Your task to perform on an android device: allow notifications from all sites in the chrome app Image 0: 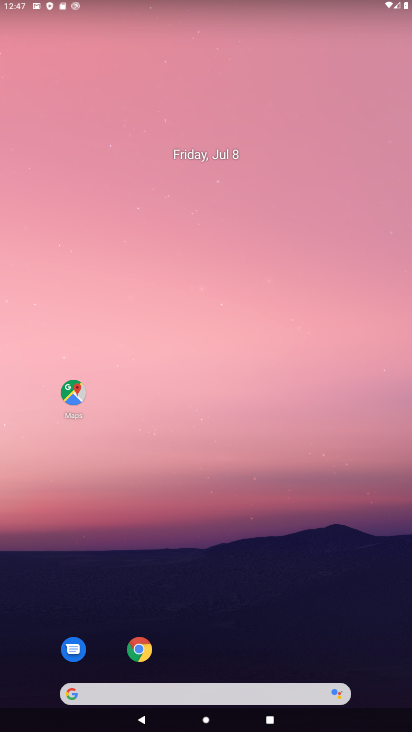
Step 0: drag from (276, 618) to (269, 119)
Your task to perform on an android device: allow notifications from all sites in the chrome app Image 1: 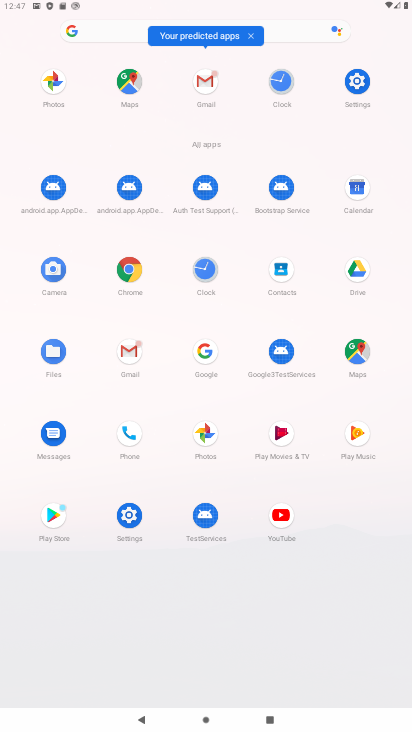
Step 1: click (130, 271)
Your task to perform on an android device: allow notifications from all sites in the chrome app Image 2: 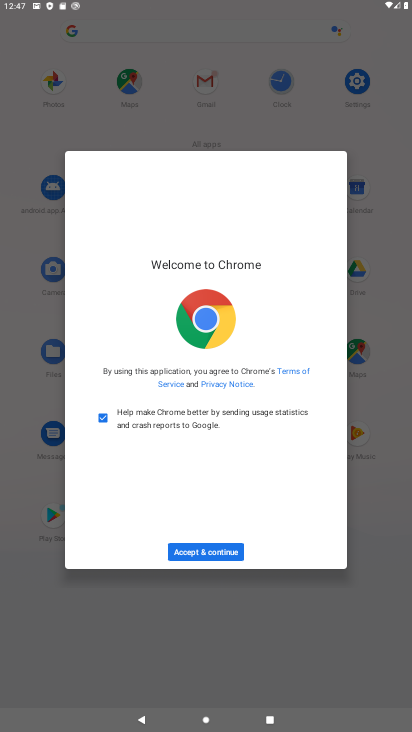
Step 2: click (223, 554)
Your task to perform on an android device: allow notifications from all sites in the chrome app Image 3: 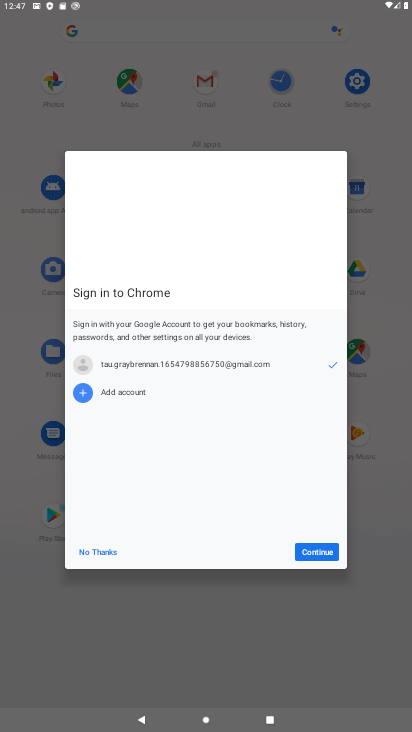
Step 3: click (323, 549)
Your task to perform on an android device: allow notifications from all sites in the chrome app Image 4: 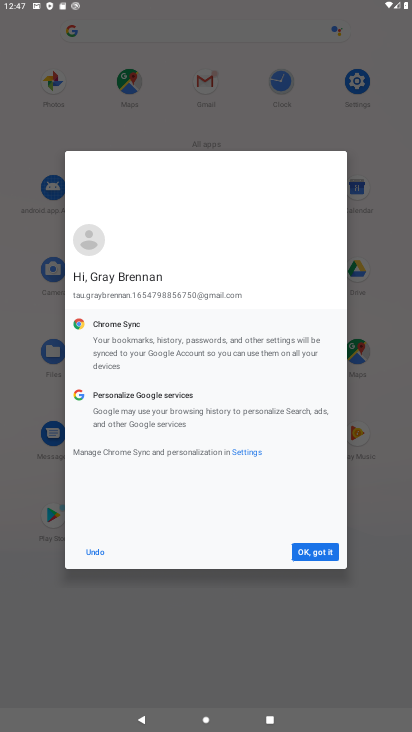
Step 4: click (321, 549)
Your task to perform on an android device: allow notifications from all sites in the chrome app Image 5: 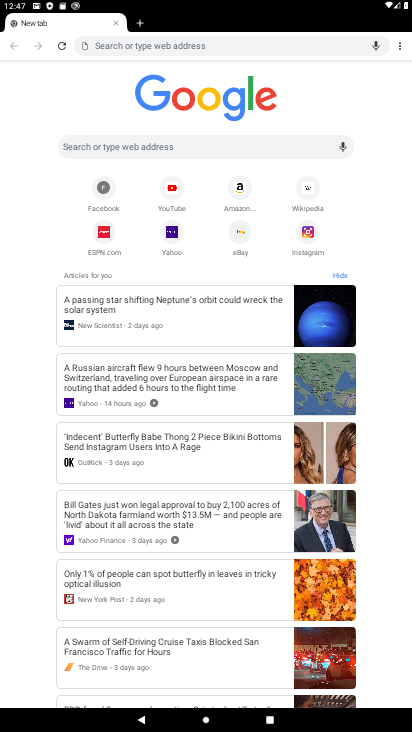
Step 5: drag from (405, 41) to (325, 212)
Your task to perform on an android device: allow notifications from all sites in the chrome app Image 6: 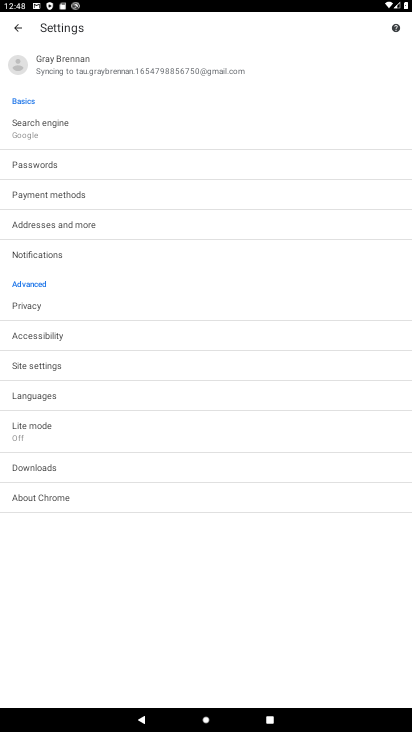
Step 6: click (56, 362)
Your task to perform on an android device: allow notifications from all sites in the chrome app Image 7: 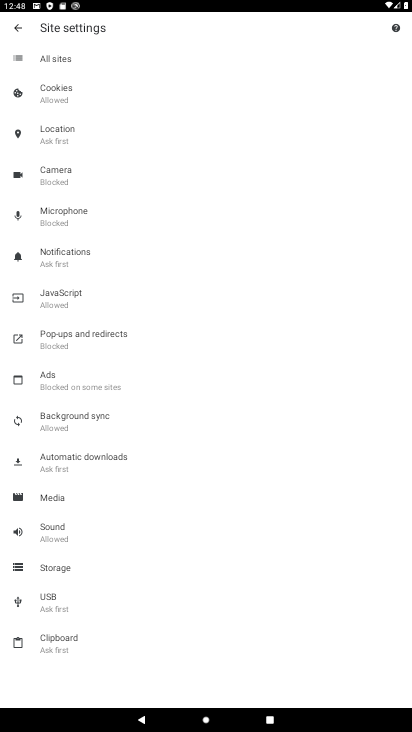
Step 7: click (93, 255)
Your task to perform on an android device: allow notifications from all sites in the chrome app Image 8: 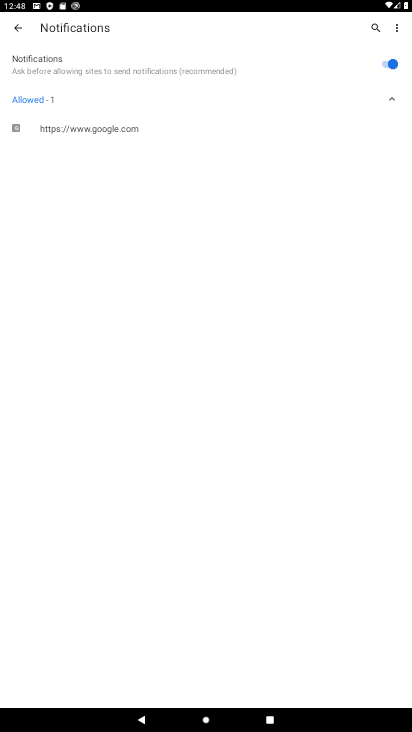
Step 8: task complete